Your task to perform on an android device: empty trash in the gmail app Image 0: 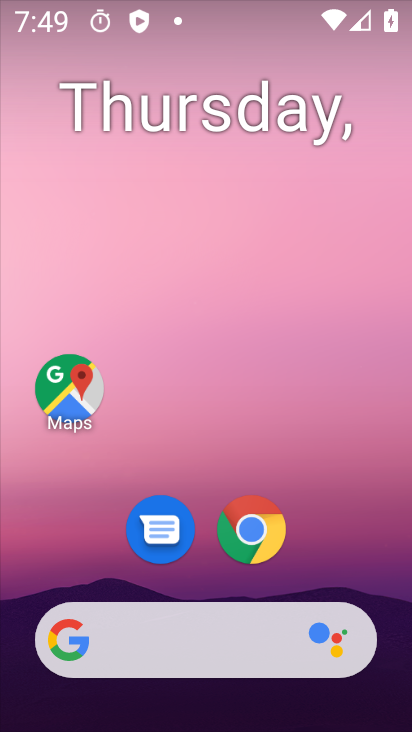
Step 0: drag from (390, 690) to (354, 78)
Your task to perform on an android device: empty trash in the gmail app Image 1: 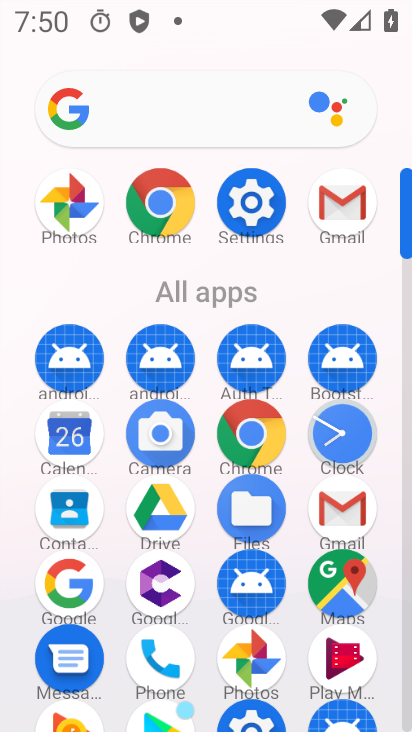
Step 1: click (337, 521)
Your task to perform on an android device: empty trash in the gmail app Image 2: 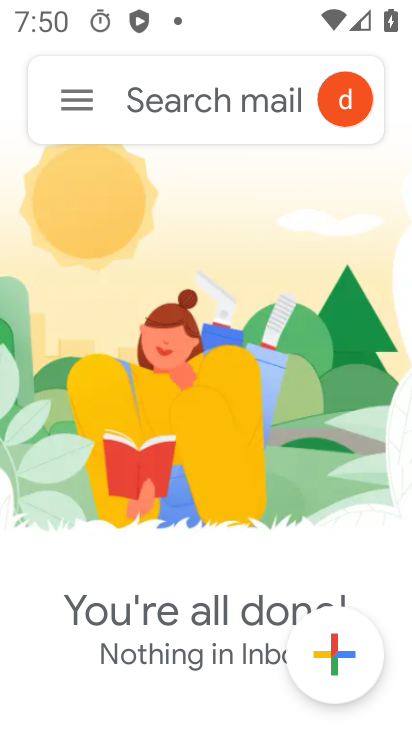
Step 2: click (76, 85)
Your task to perform on an android device: empty trash in the gmail app Image 3: 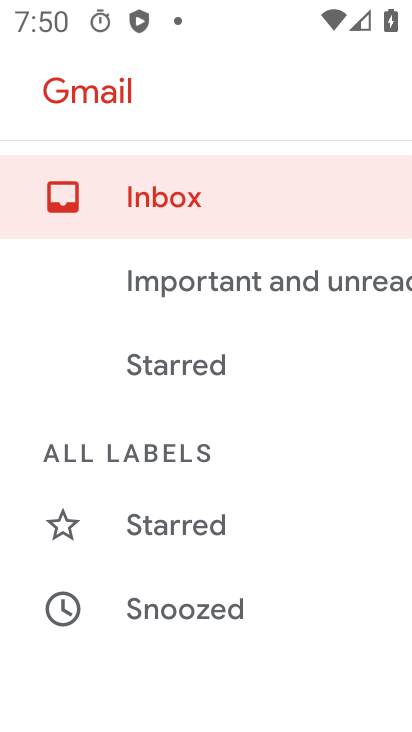
Step 3: drag from (279, 624) to (287, 210)
Your task to perform on an android device: empty trash in the gmail app Image 4: 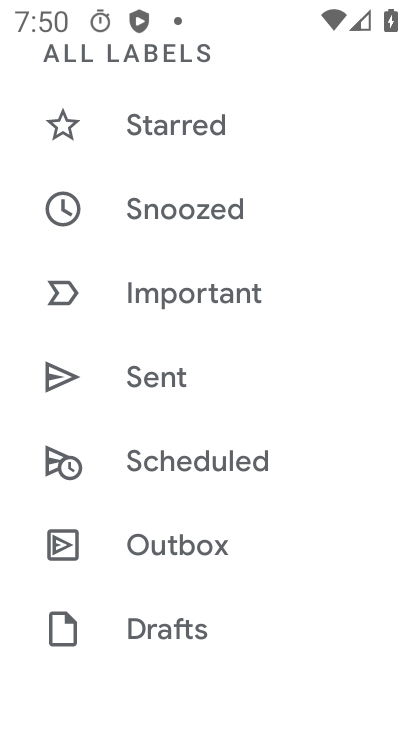
Step 4: drag from (277, 595) to (303, 322)
Your task to perform on an android device: empty trash in the gmail app Image 5: 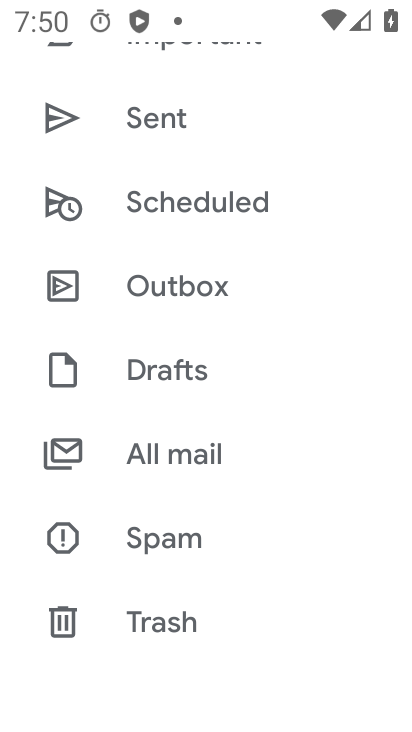
Step 5: click (141, 624)
Your task to perform on an android device: empty trash in the gmail app Image 6: 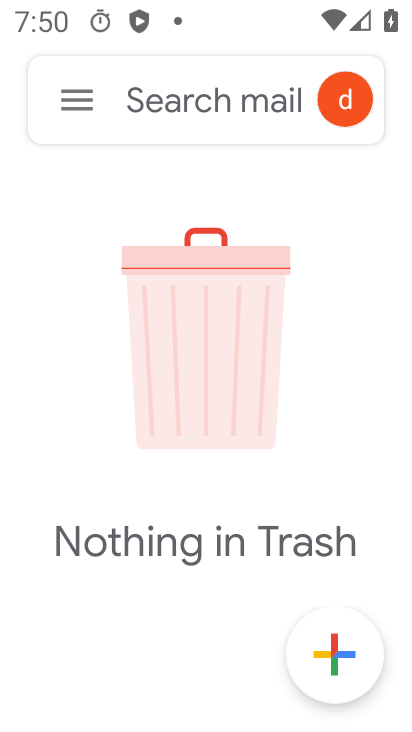
Step 6: task complete